Your task to perform on an android device: What is the recent news? Image 0: 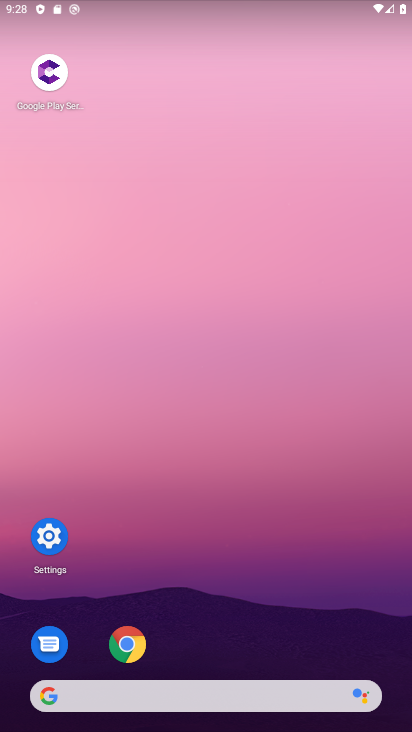
Step 0: drag from (1, 307) to (411, 278)
Your task to perform on an android device: What is the recent news? Image 1: 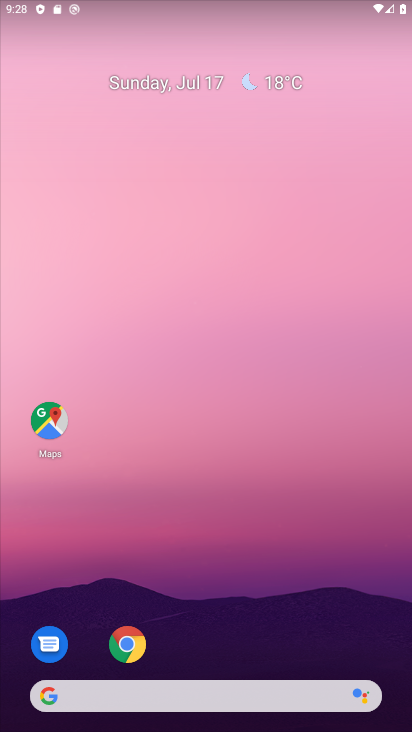
Step 1: task complete